Your task to perform on an android device: delete the emails in spam in the gmail app Image 0: 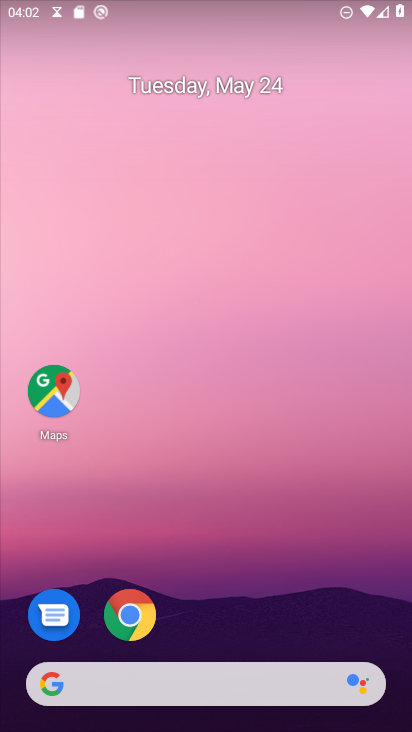
Step 0: drag from (209, 610) to (224, 52)
Your task to perform on an android device: delete the emails in spam in the gmail app Image 1: 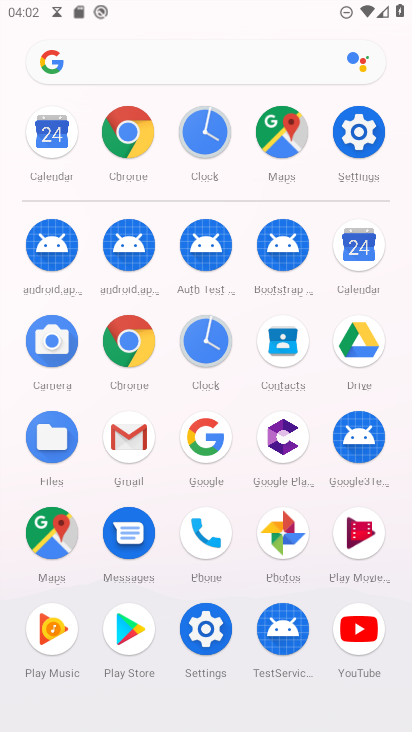
Step 1: drag from (10, 513) to (30, 172)
Your task to perform on an android device: delete the emails in spam in the gmail app Image 2: 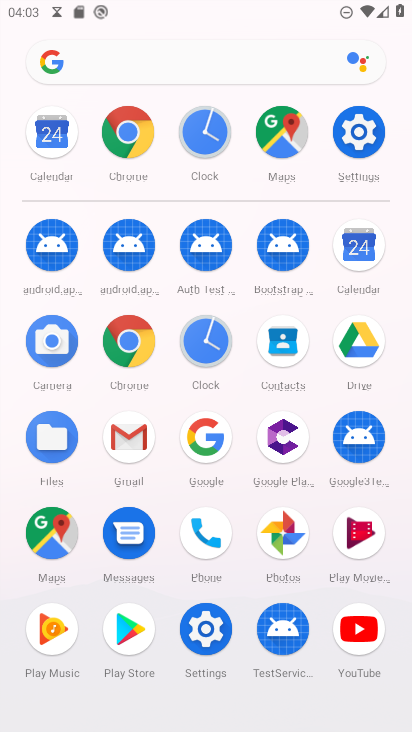
Step 2: click (122, 434)
Your task to perform on an android device: delete the emails in spam in the gmail app Image 3: 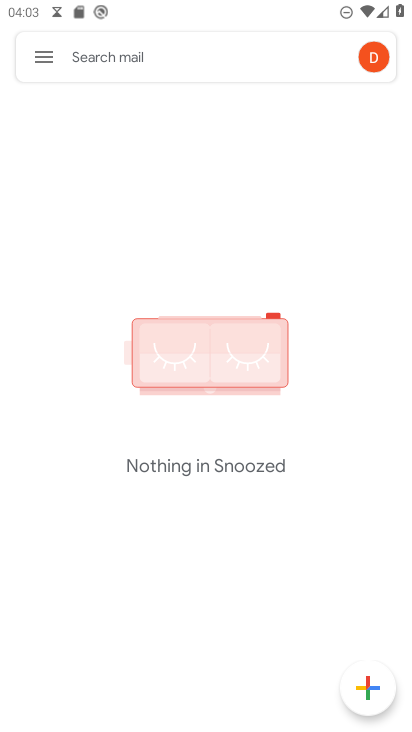
Step 3: click (46, 62)
Your task to perform on an android device: delete the emails in spam in the gmail app Image 4: 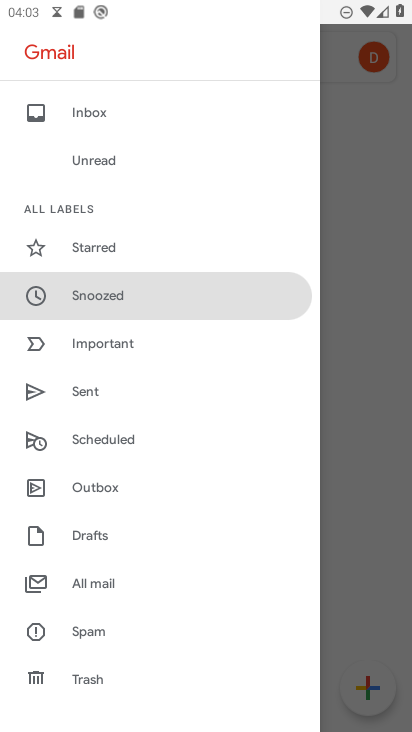
Step 4: click (104, 628)
Your task to perform on an android device: delete the emails in spam in the gmail app Image 5: 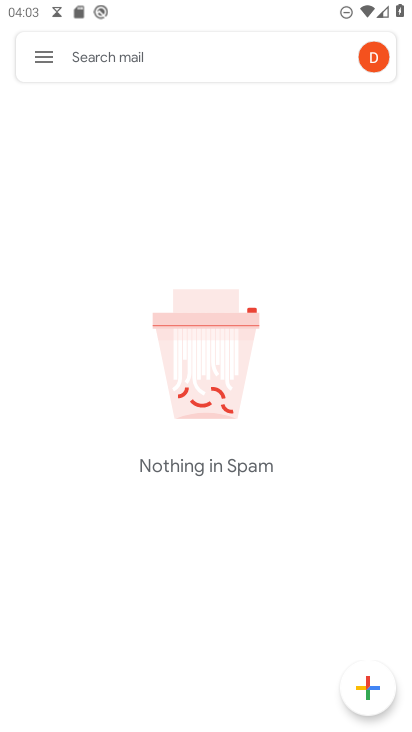
Step 5: click (56, 57)
Your task to perform on an android device: delete the emails in spam in the gmail app Image 6: 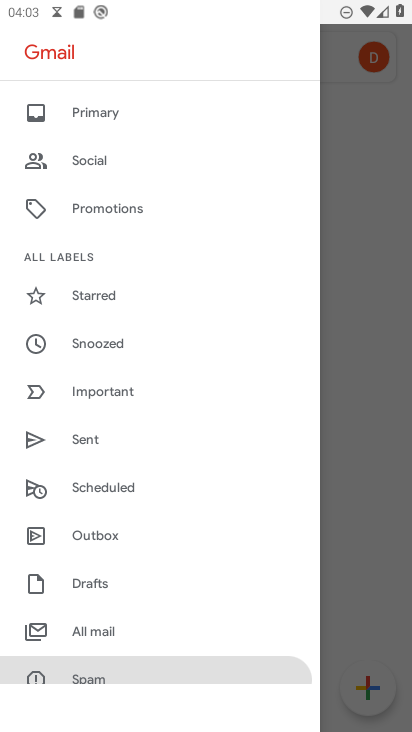
Step 6: click (99, 677)
Your task to perform on an android device: delete the emails in spam in the gmail app Image 7: 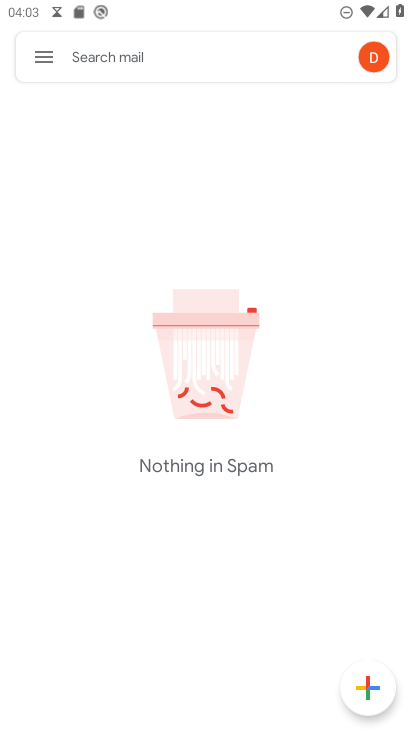
Step 7: task complete